Your task to perform on an android device: Add "razer nari" to the cart on newegg, then select checkout. Image 0: 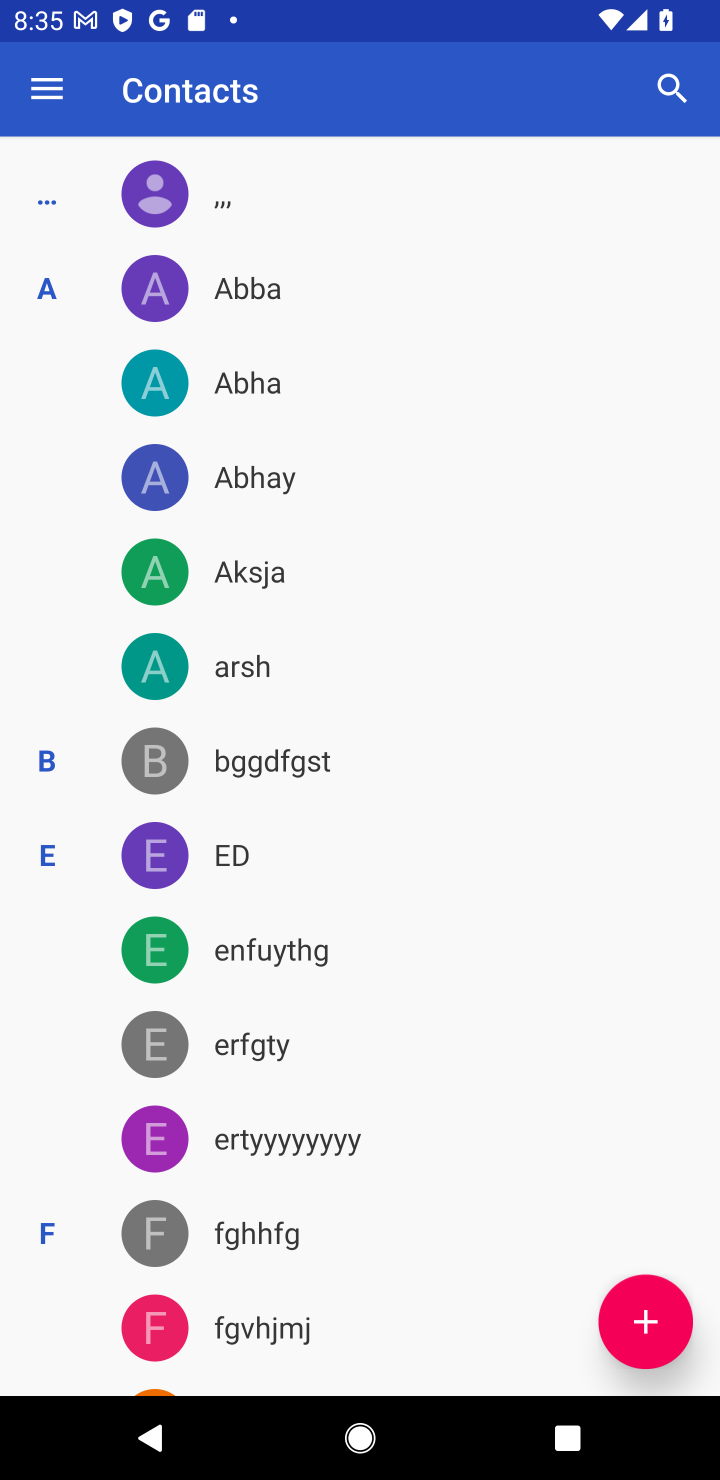
Step 0: press home button
Your task to perform on an android device: Add "razer nari" to the cart on newegg, then select checkout. Image 1: 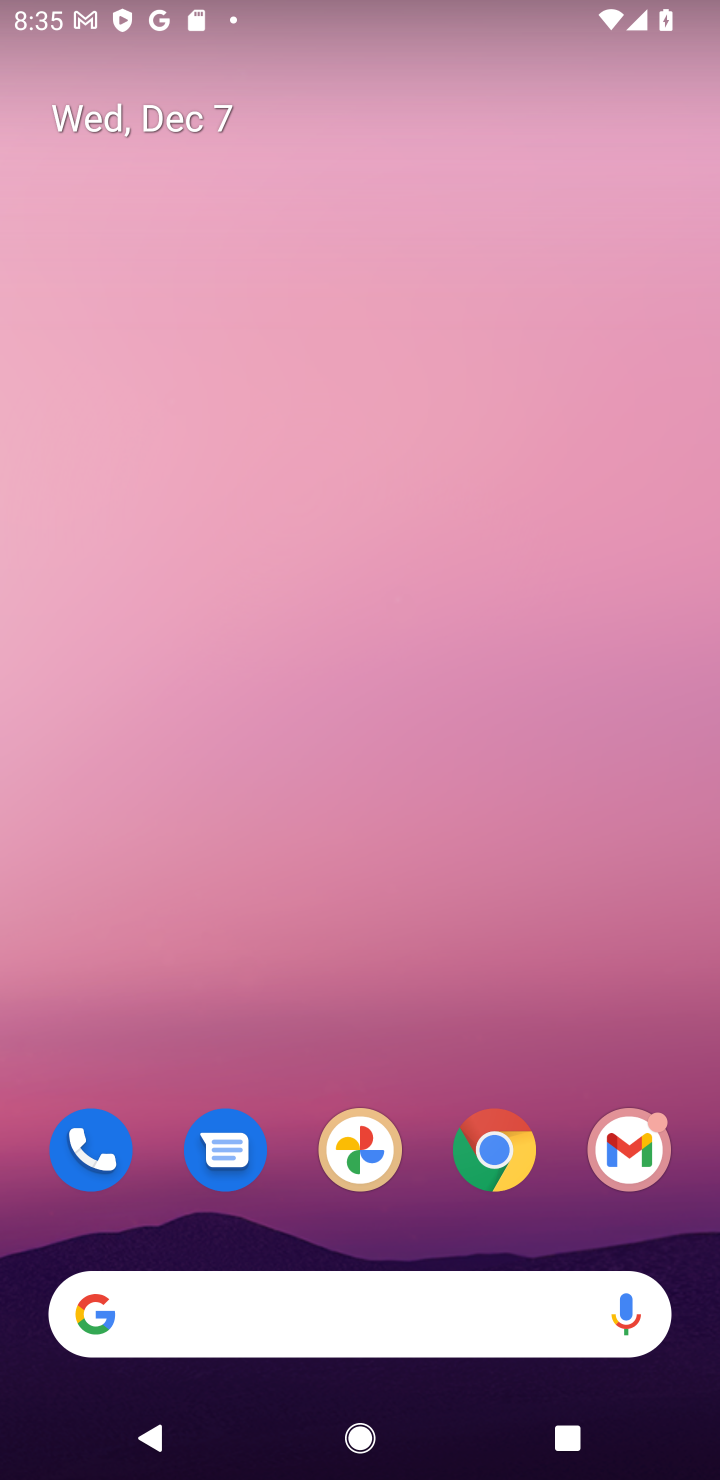
Step 1: click (498, 1169)
Your task to perform on an android device: Add "razer nari" to the cart on newegg, then select checkout. Image 2: 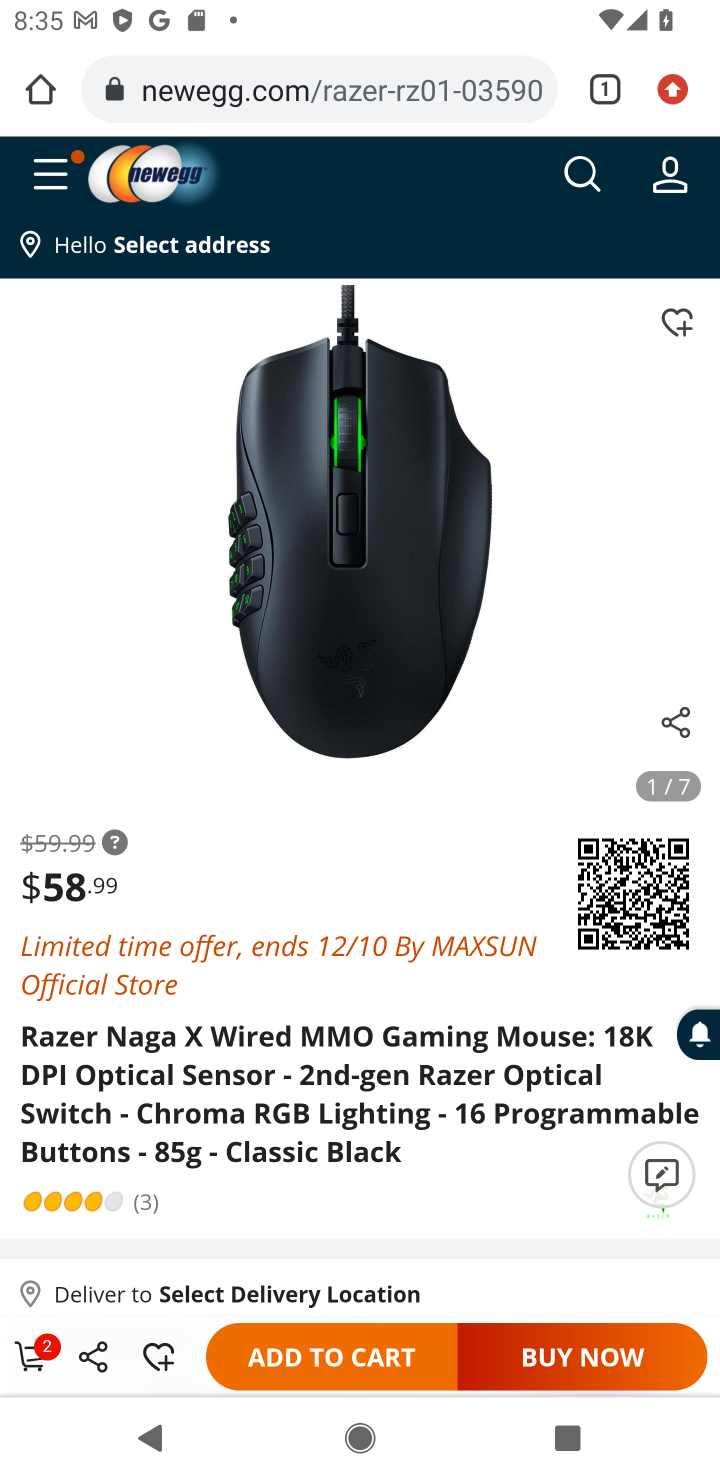
Step 2: click (180, 81)
Your task to perform on an android device: Add "razer nari" to the cart on newegg, then select checkout. Image 3: 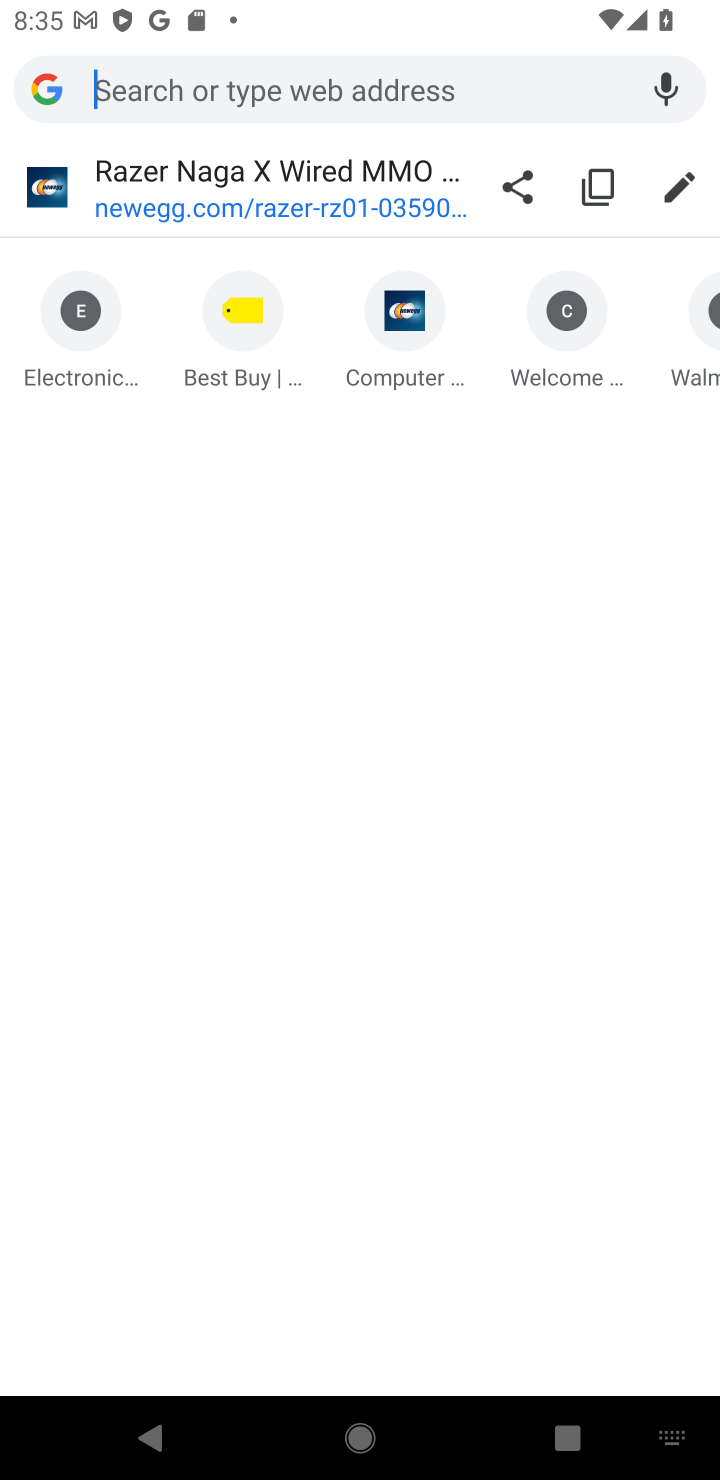
Step 3: click (421, 735)
Your task to perform on an android device: Add "razer nari" to the cart on newegg, then select checkout. Image 4: 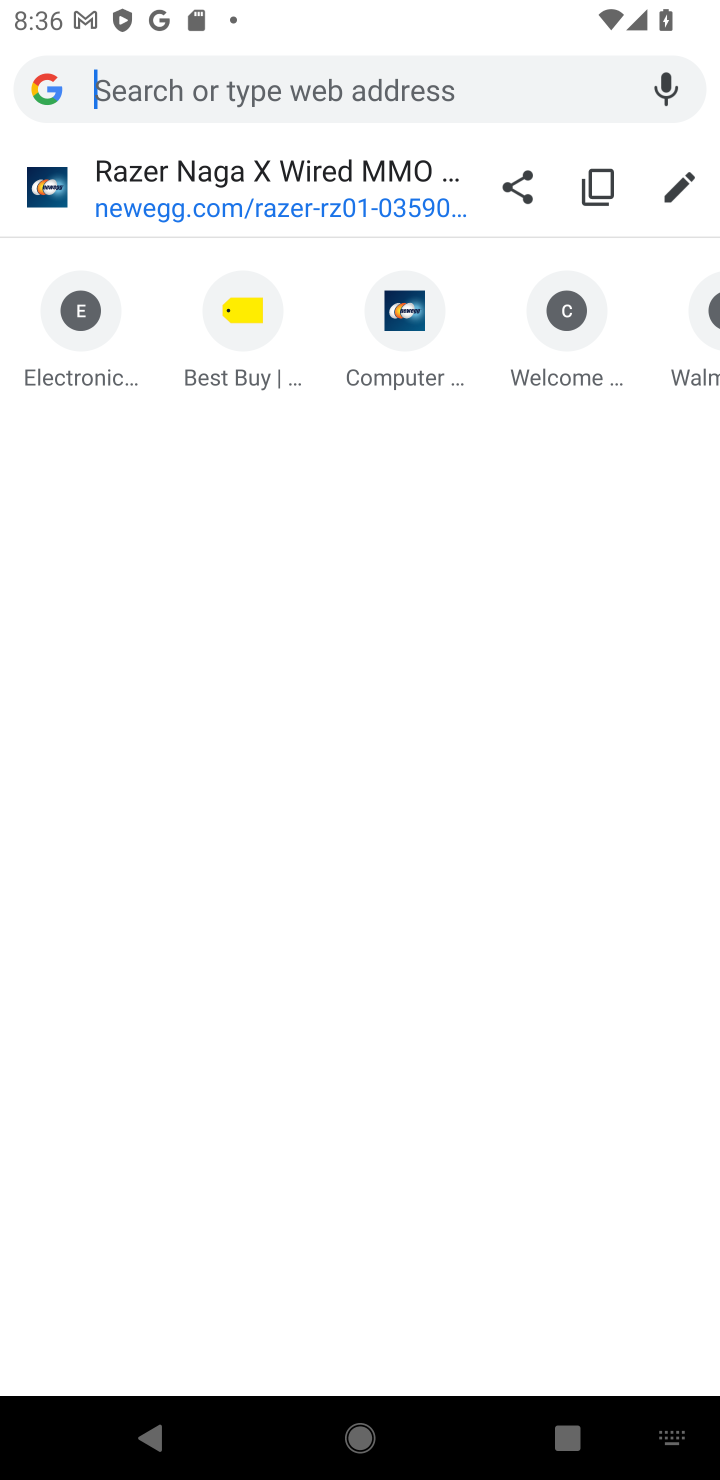
Step 4: press enter
Your task to perform on an android device: Add "razer nari" to the cart on newegg, then select checkout. Image 5: 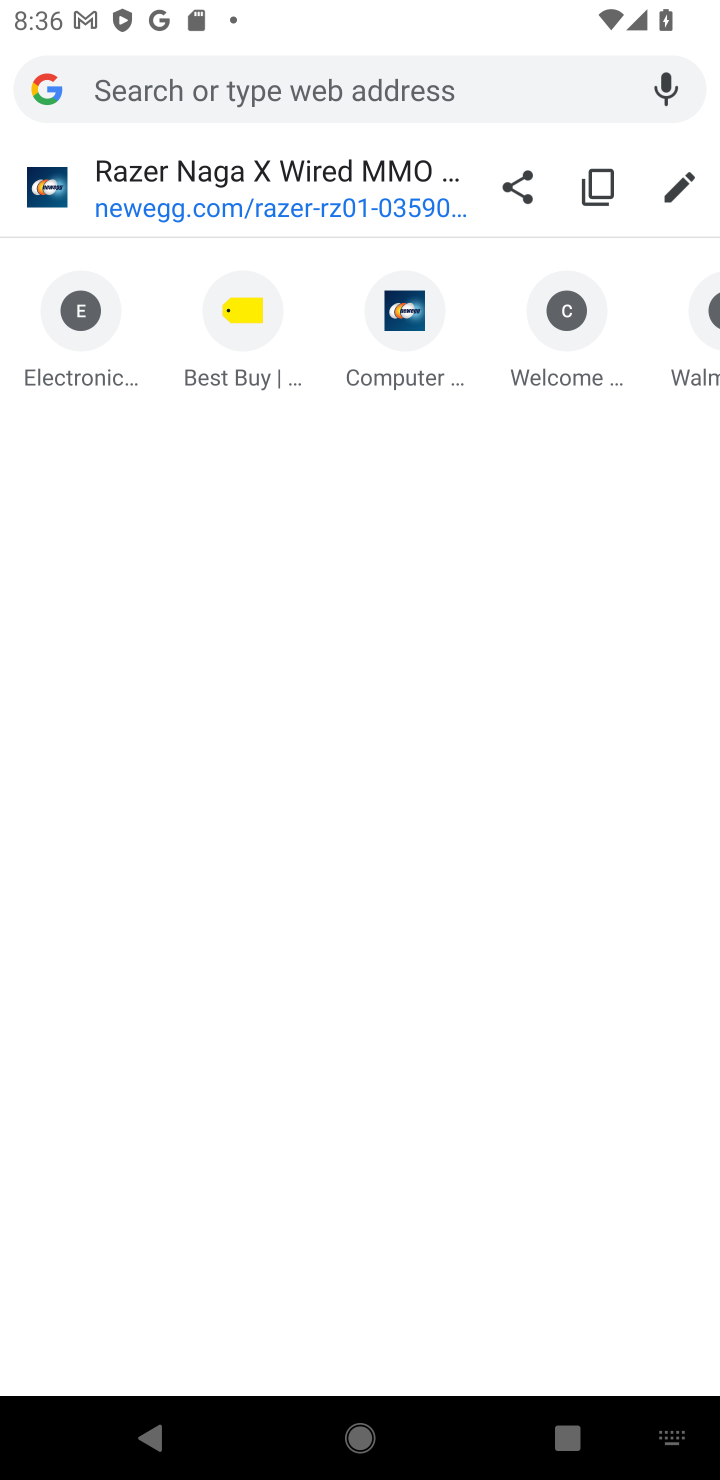
Step 5: type "newegg"
Your task to perform on an android device: Add "razer nari" to the cart on newegg, then select checkout. Image 6: 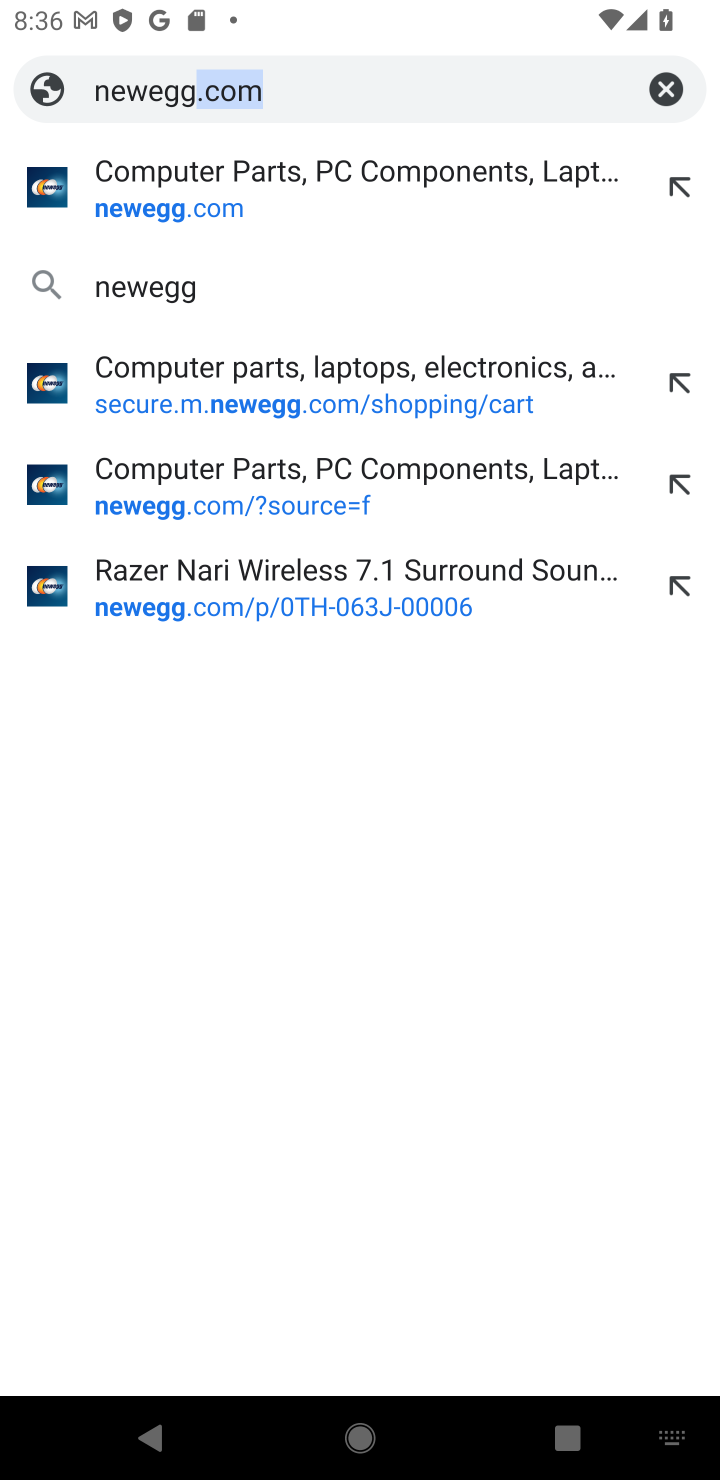
Step 6: click (239, 201)
Your task to perform on an android device: Add "razer nari" to the cart on newegg, then select checkout. Image 7: 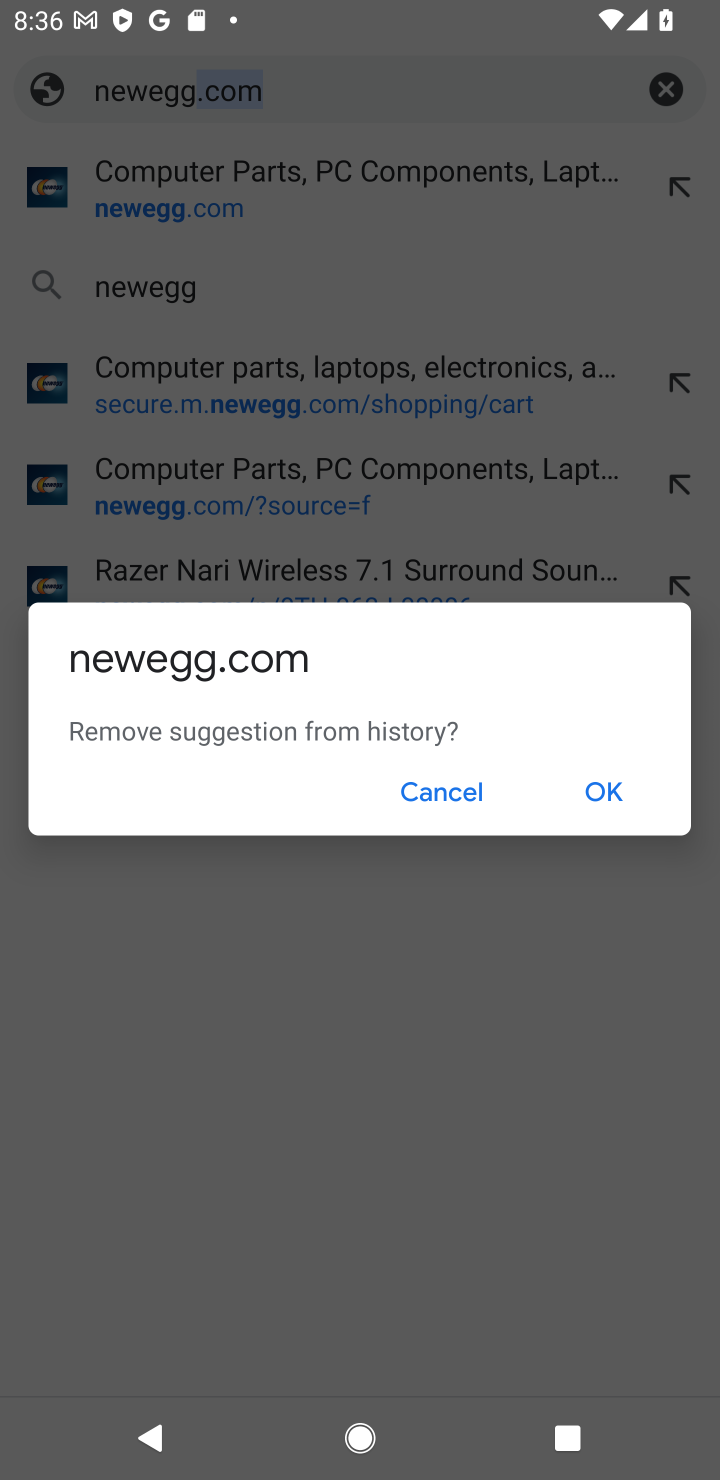
Step 7: click (609, 796)
Your task to perform on an android device: Add "razer nari" to the cart on newegg, then select checkout. Image 8: 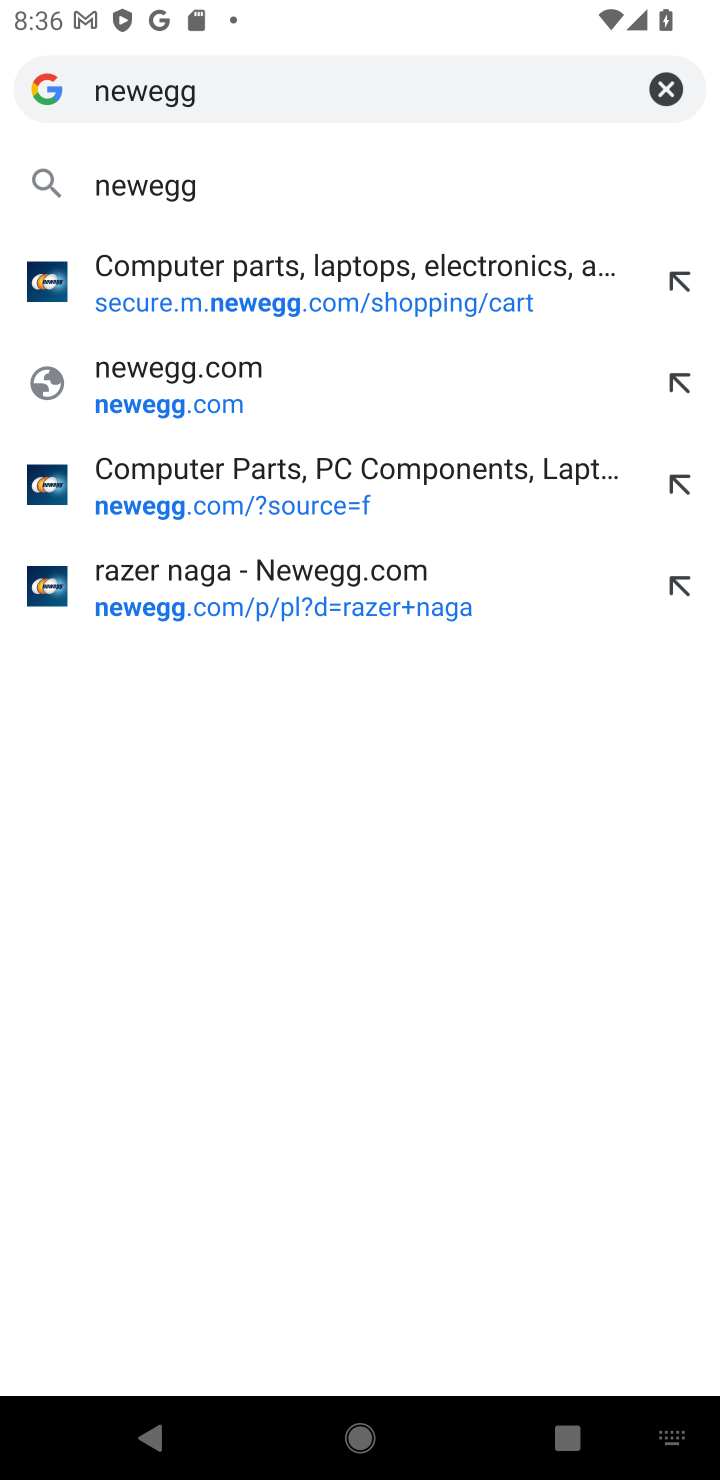
Step 8: press enter
Your task to perform on an android device: Add "razer nari" to the cart on newegg, then select checkout. Image 9: 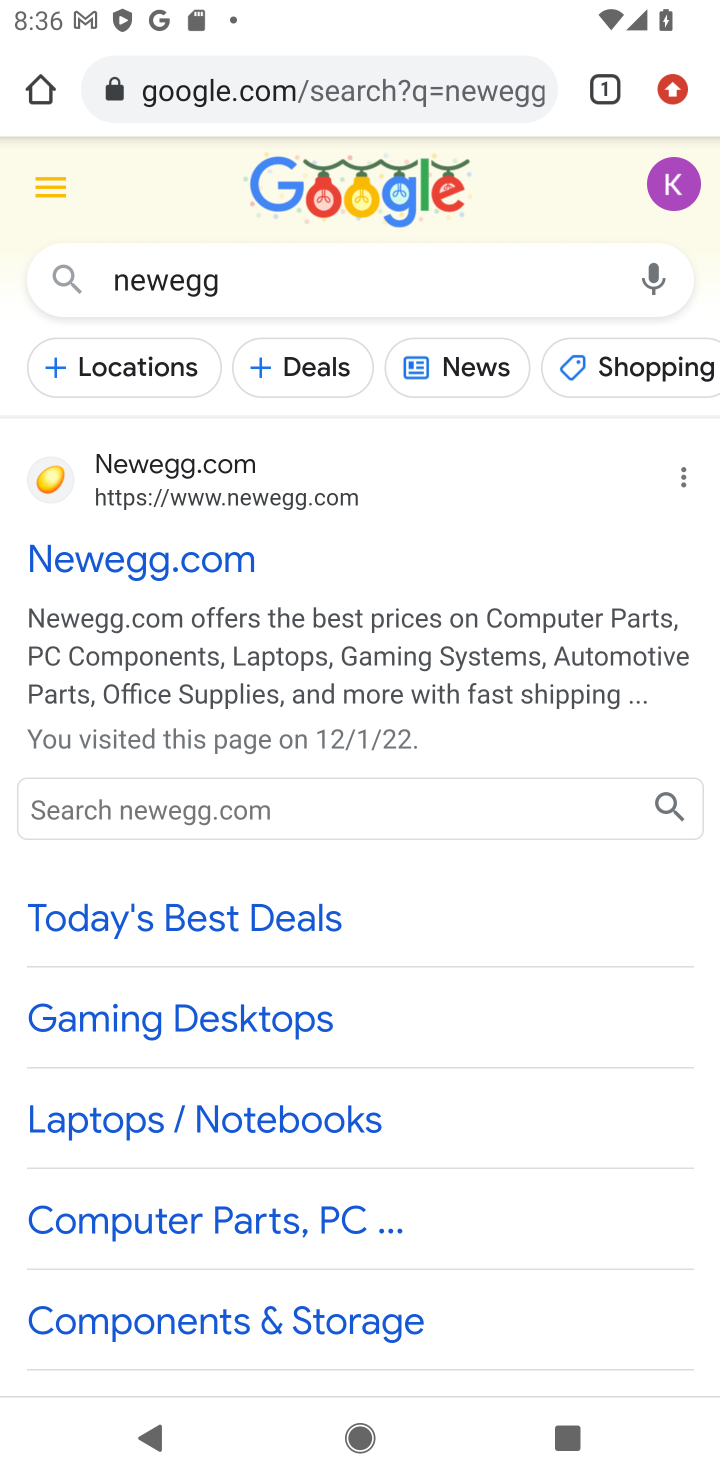
Step 9: click (130, 568)
Your task to perform on an android device: Add "razer nari" to the cart on newegg, then select checkout. Image 10: 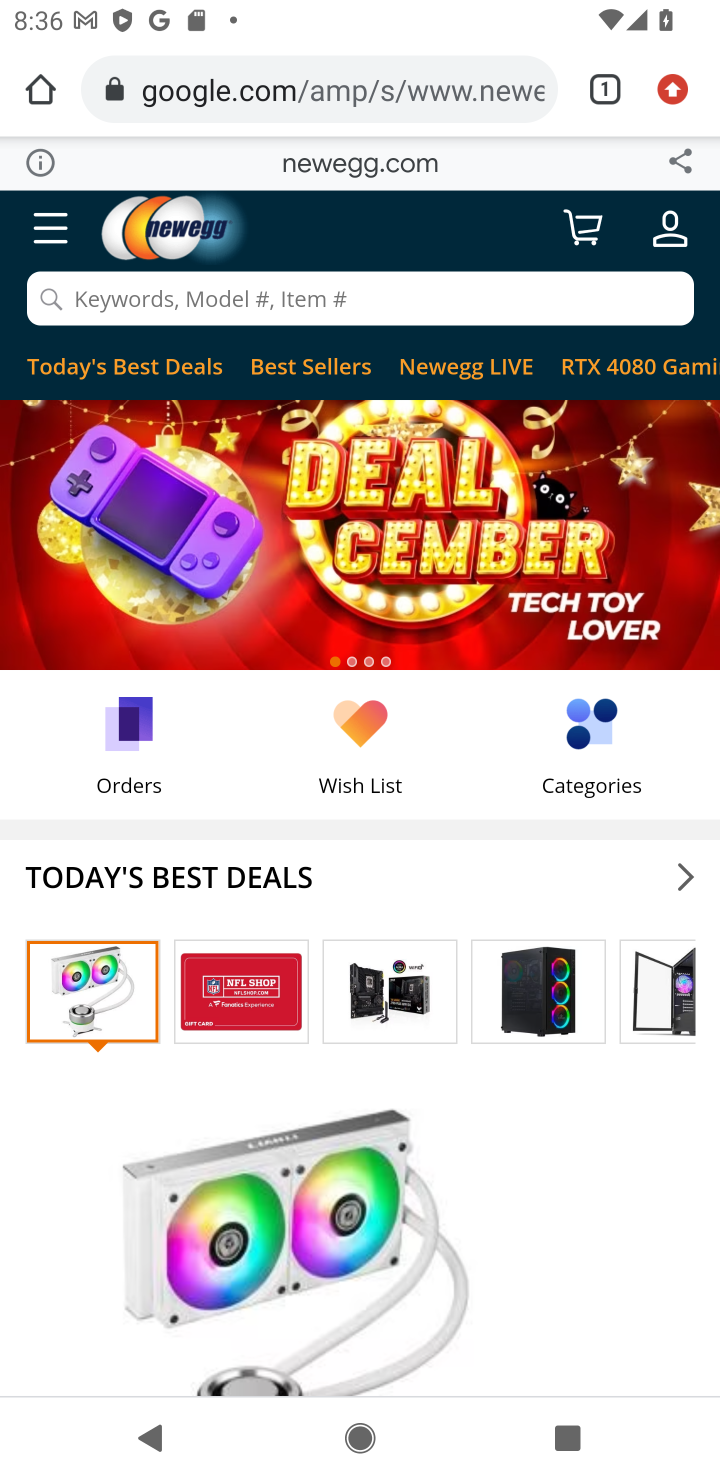
Step 10: click (198, 290)
Your task to perform on an android device: Add "razer nari" to the cart on newegg, then select checkout. Image 11: 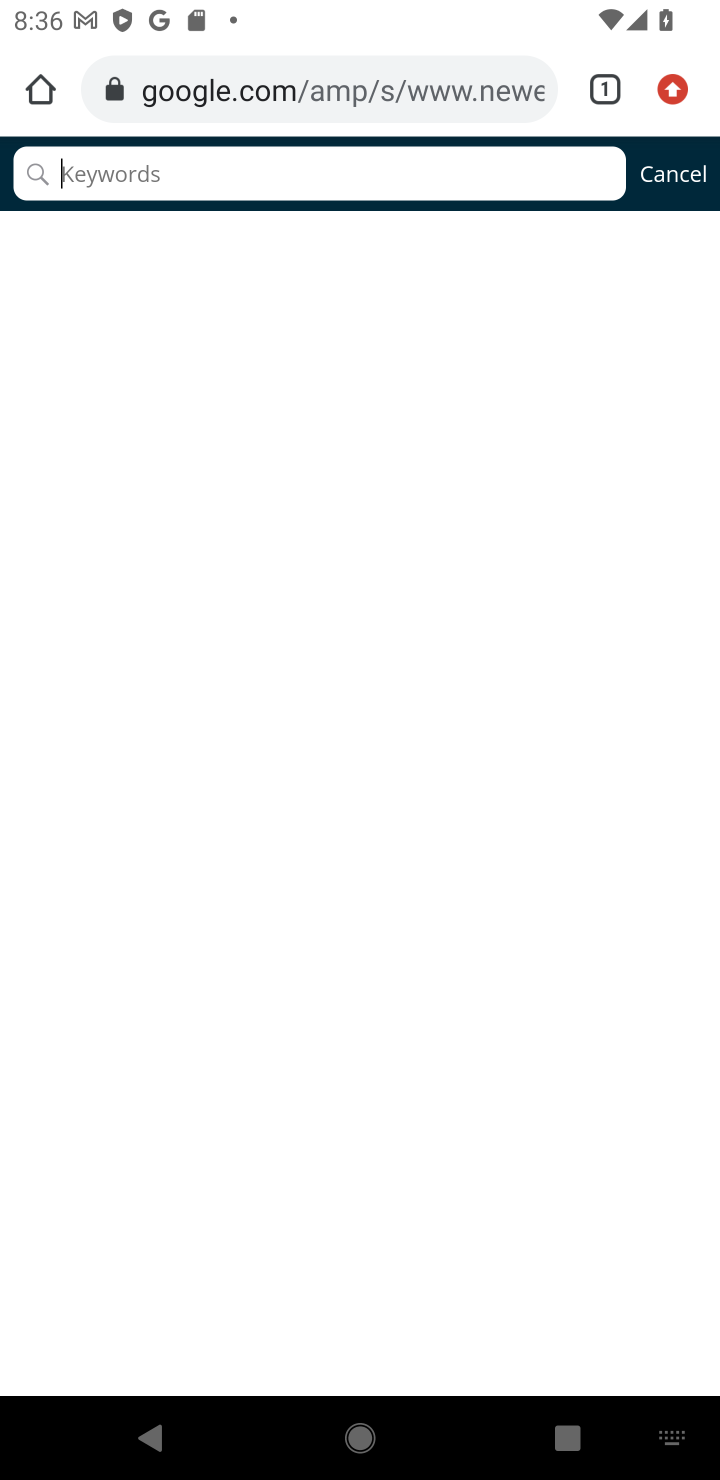
Step 11: type "razer nari"
Your task to perform on an android device: Add "razer nari" to the cart on newegg, then select checkout. Image 12: 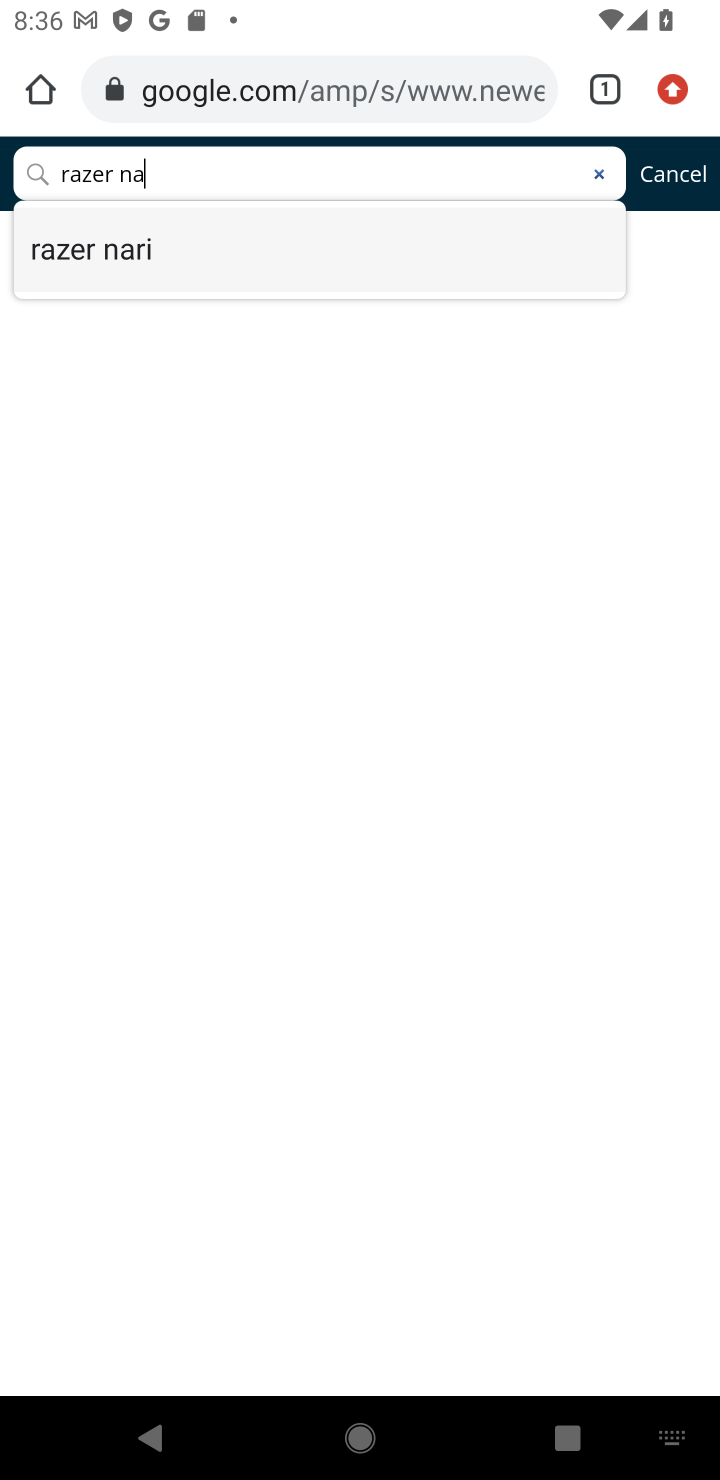
Step 12: press enter
Your task to perform on an android device: Add "razer nari" to the cart on newegg, then select checkout. Image 13: 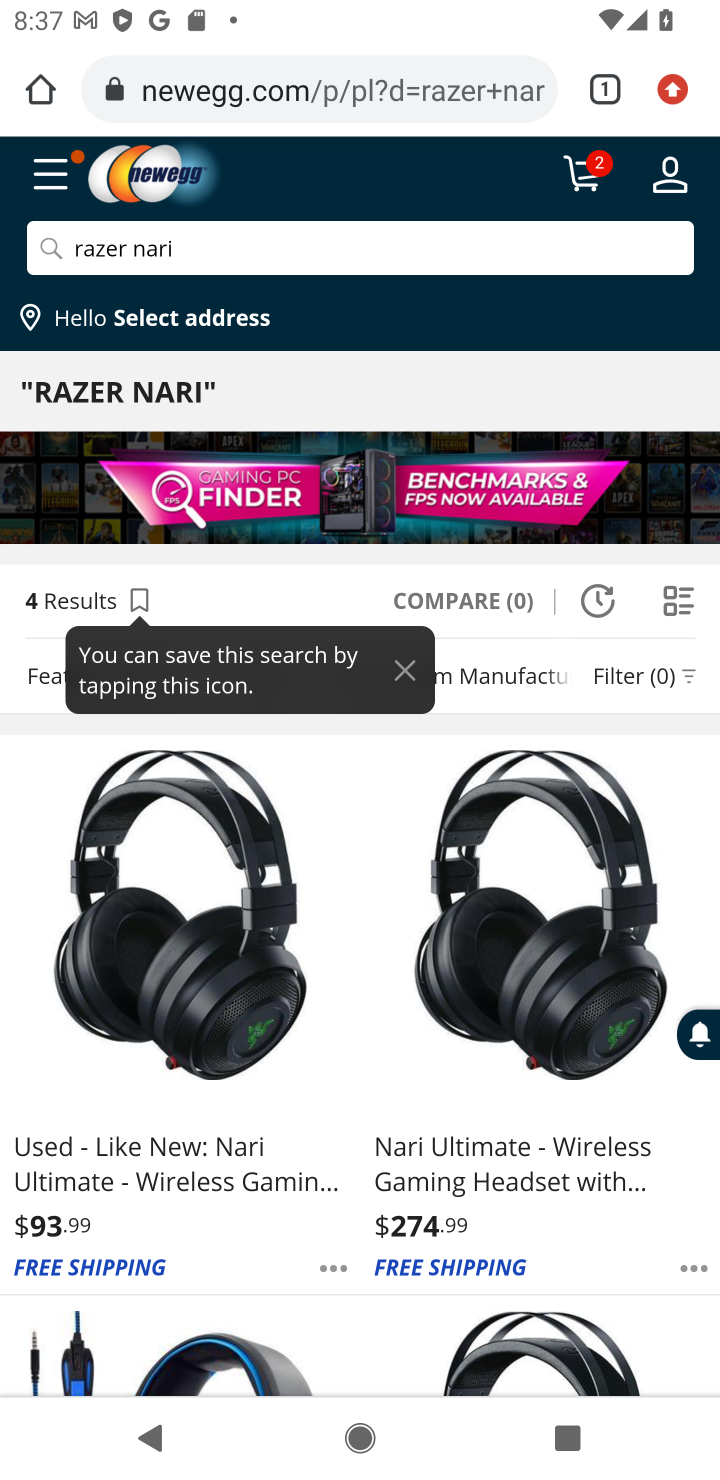
Step 13: drag from (587, 1237) to (557, 628)
Your task to perform on an android device: Add "razer nari" to the cart on newegg, then select checkout. Image 14: 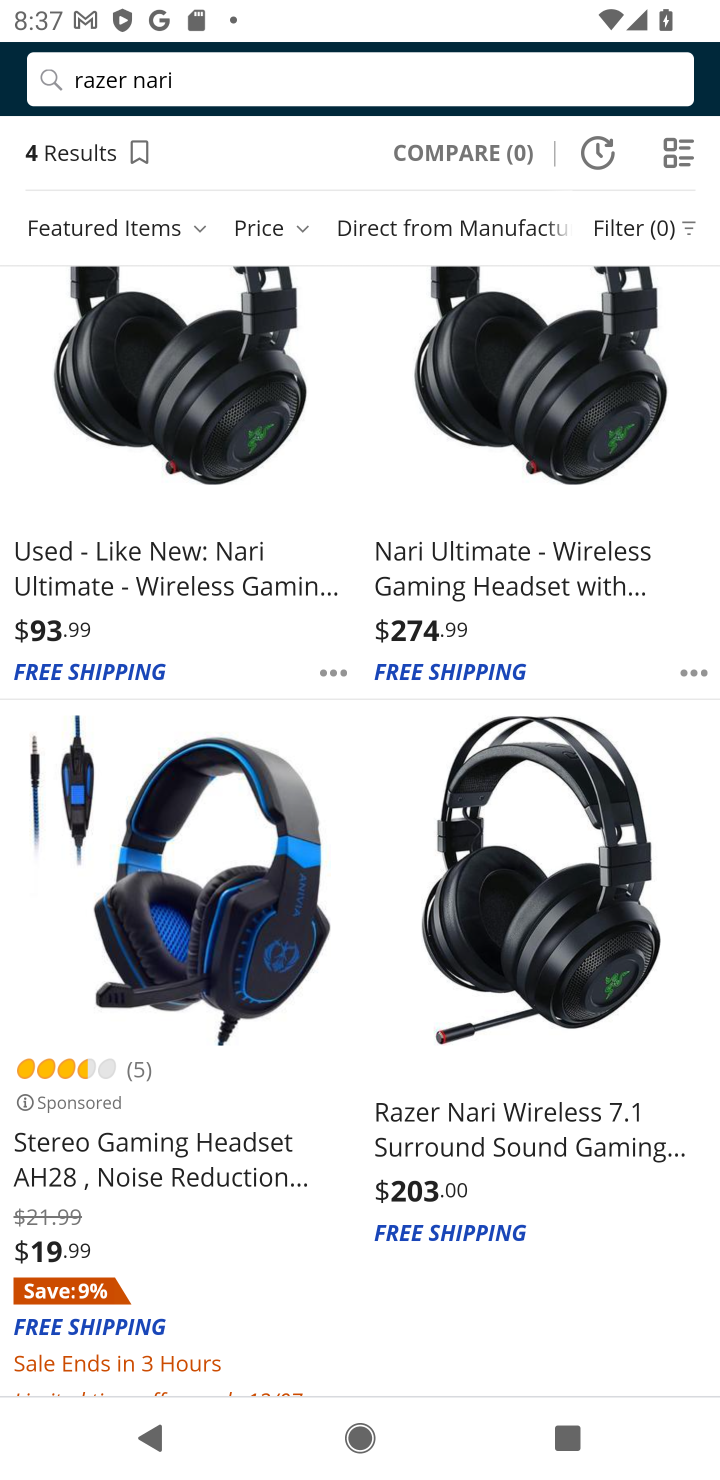
Step 14: click (537, 929)
Your task to perform on an android device: Add "razer nari" to the cart on newegg, then select checkout. Image 15: 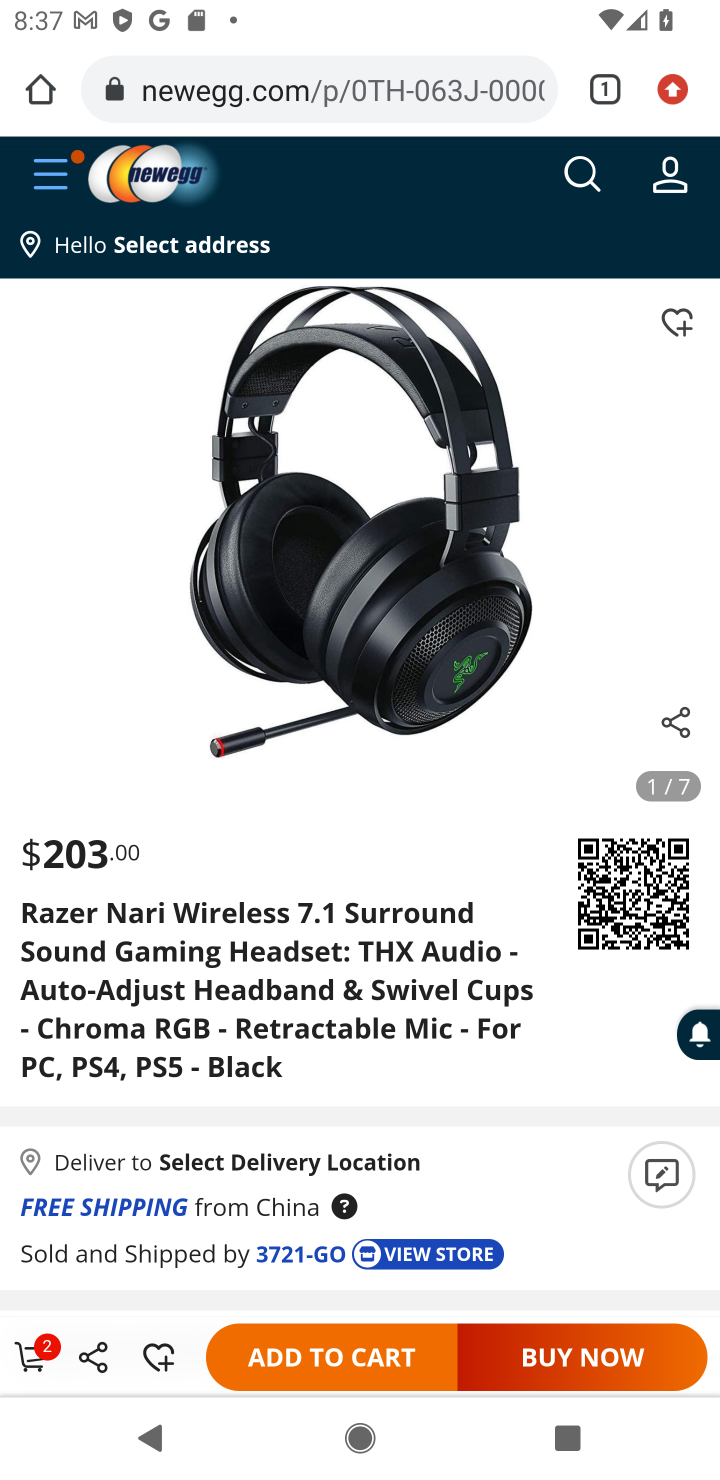
Step 15: drag from (494, 1061) to (423, 696)
Your task to perform on an android device: Add "razer nari" to the cart on newegg, then select checkout. Image 16: 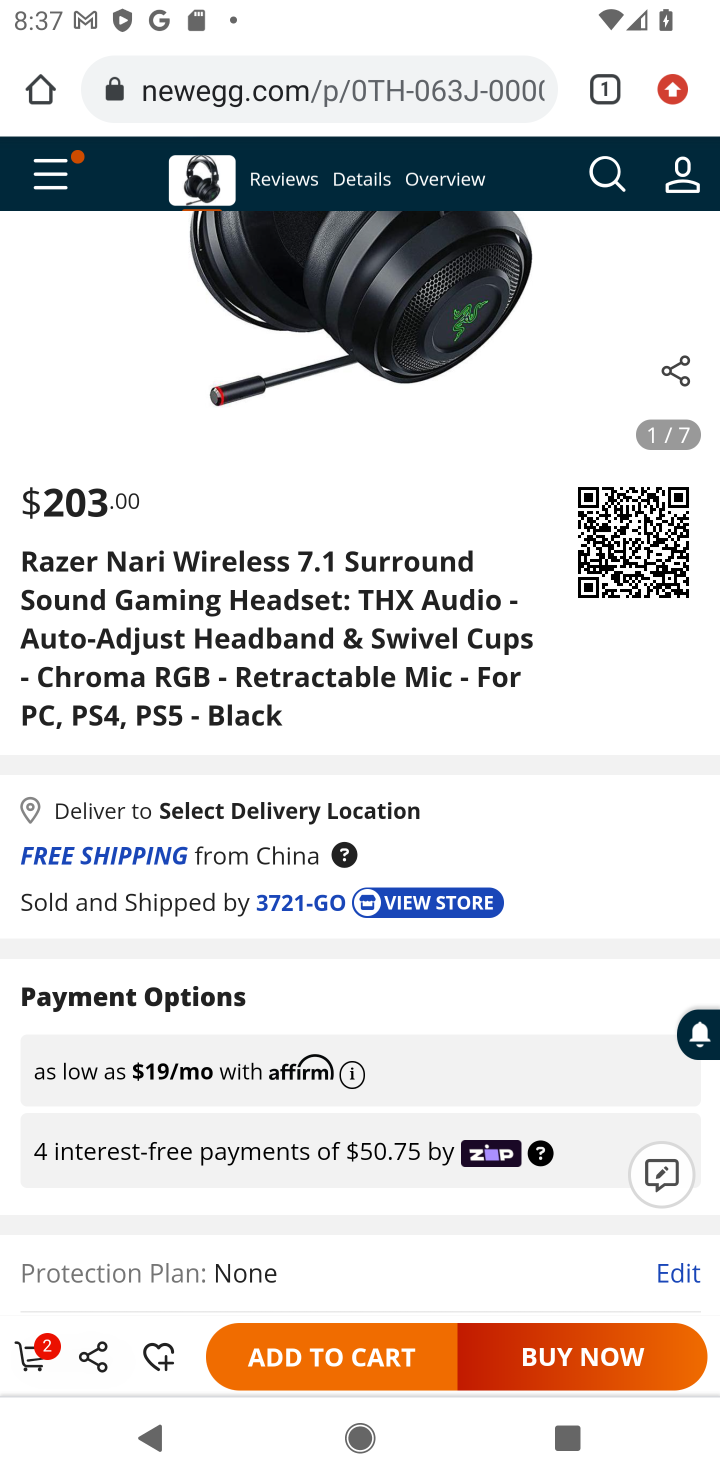
Step 16: click (360, 1367)
Your task to perform on an android device: Add "razer nari" to the cart on newegg, then select checkout. Image 17: 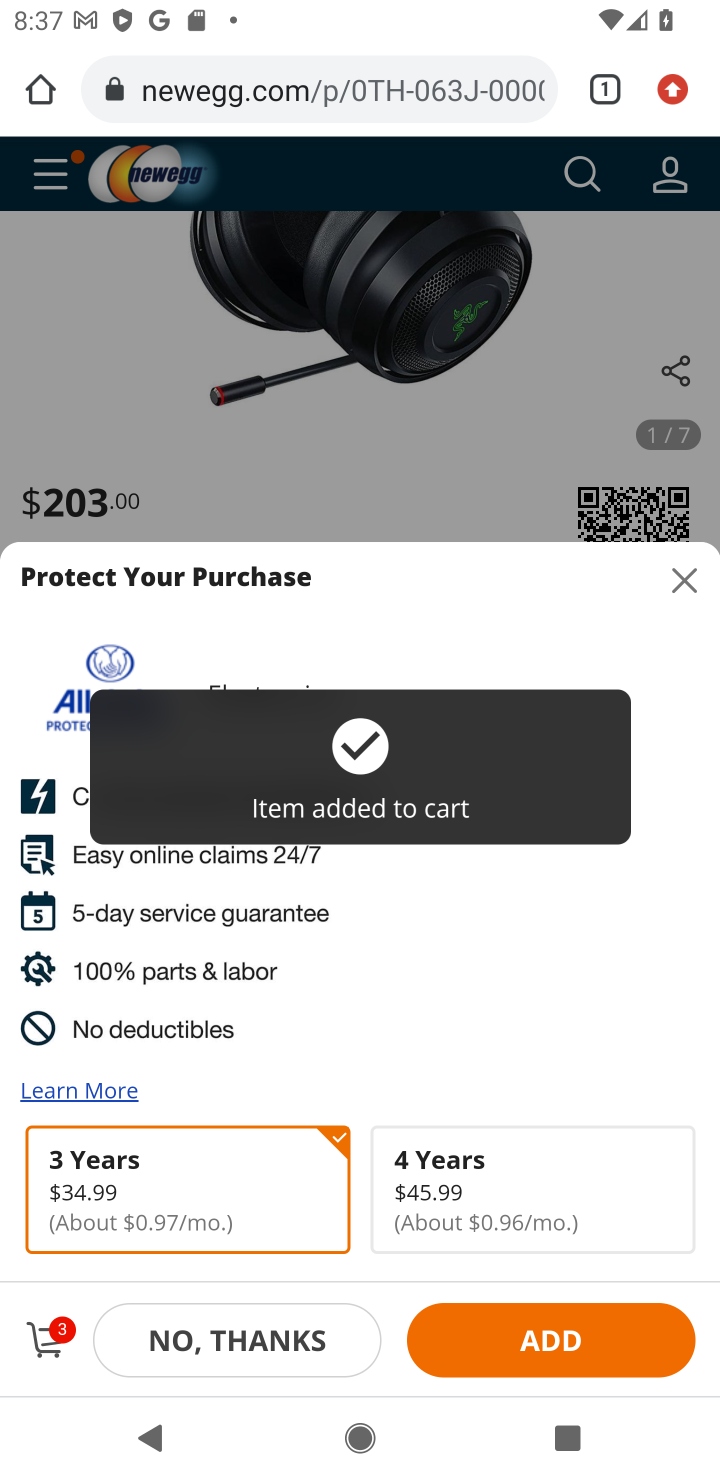
Step 17: click (524, 1343)
Your task to perform on an android device: Add "razer nari" to the cart on newegg, then select checkout. Image 18: 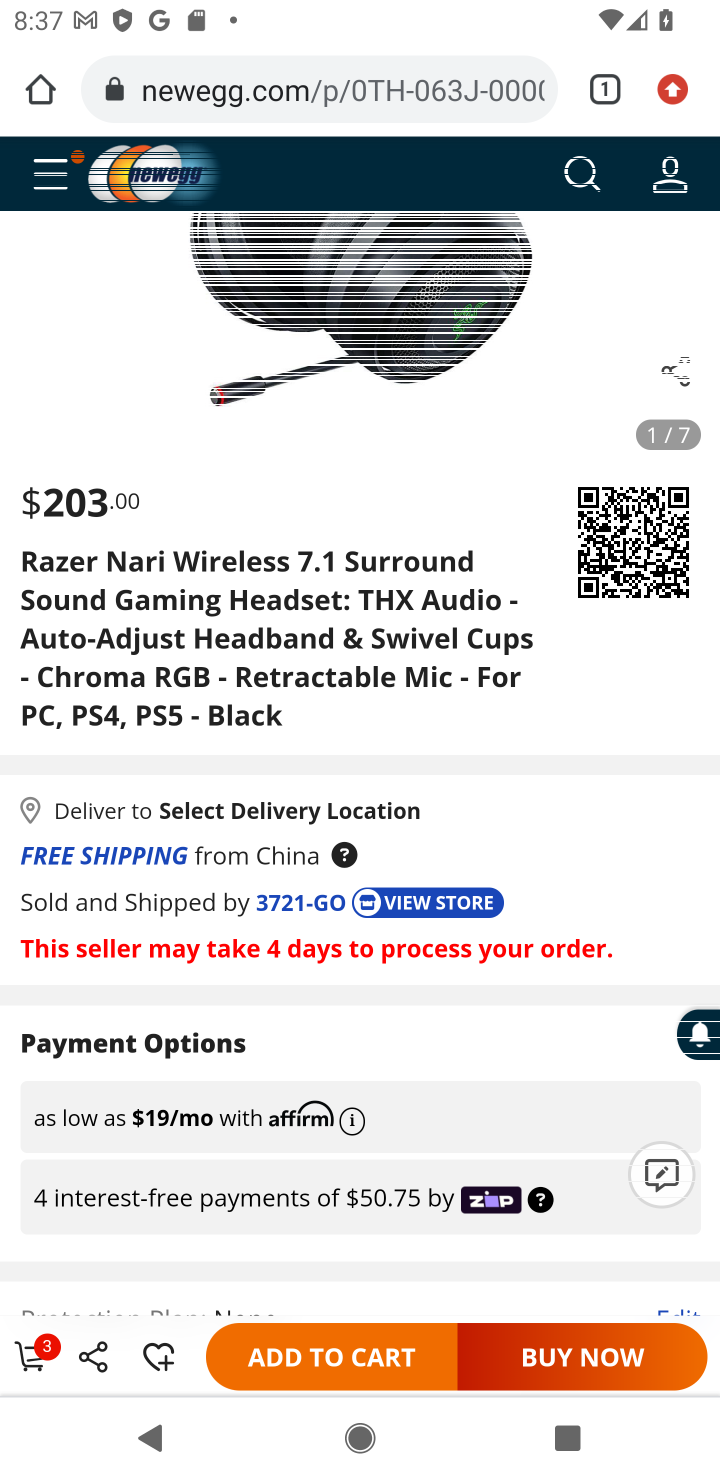
Step 18: click (45, 169)
Your task to perform on an android device: Add "razer nari" to the cart on newegg, then select checkout. Image 19: 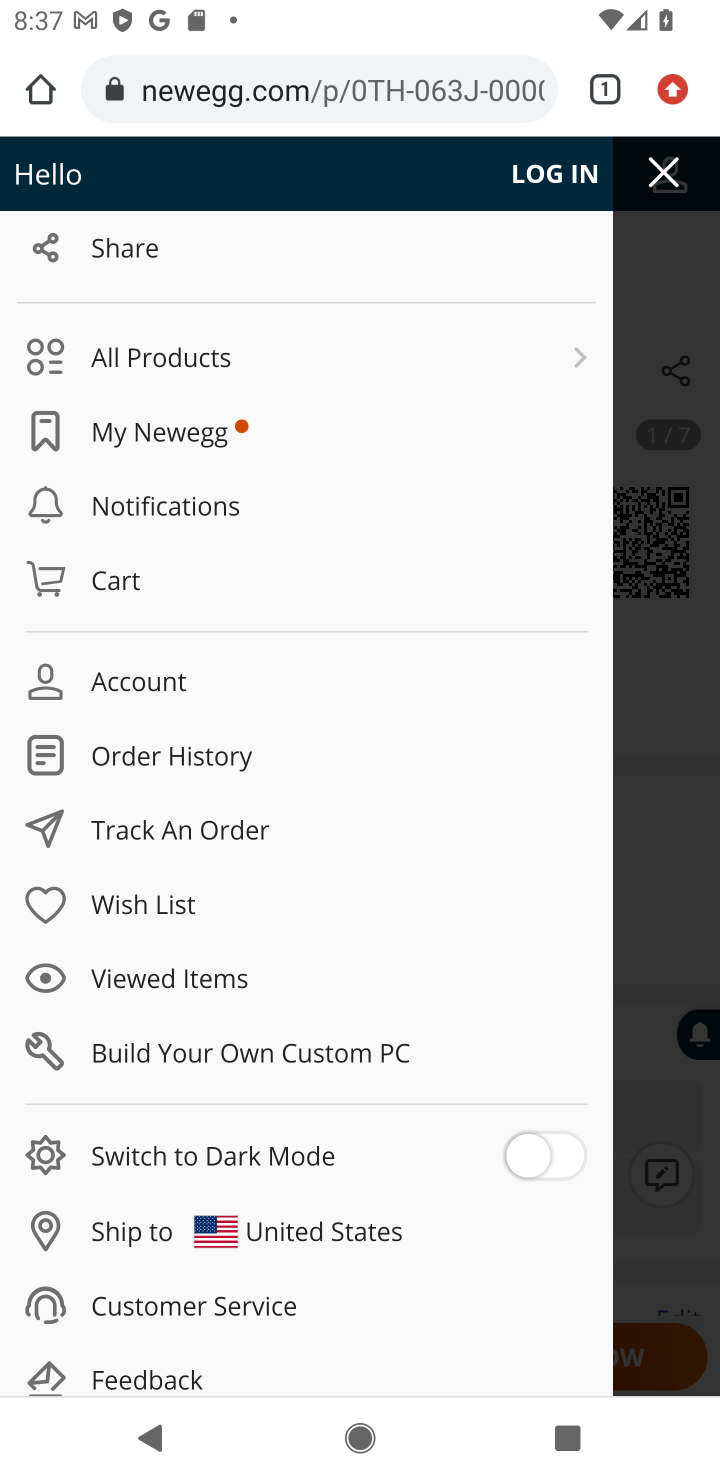
Step 19: click (141, 591)
Your task to perform on an android device: Add "razer nari" to the cart on newegg, then select checkout. Image 20: 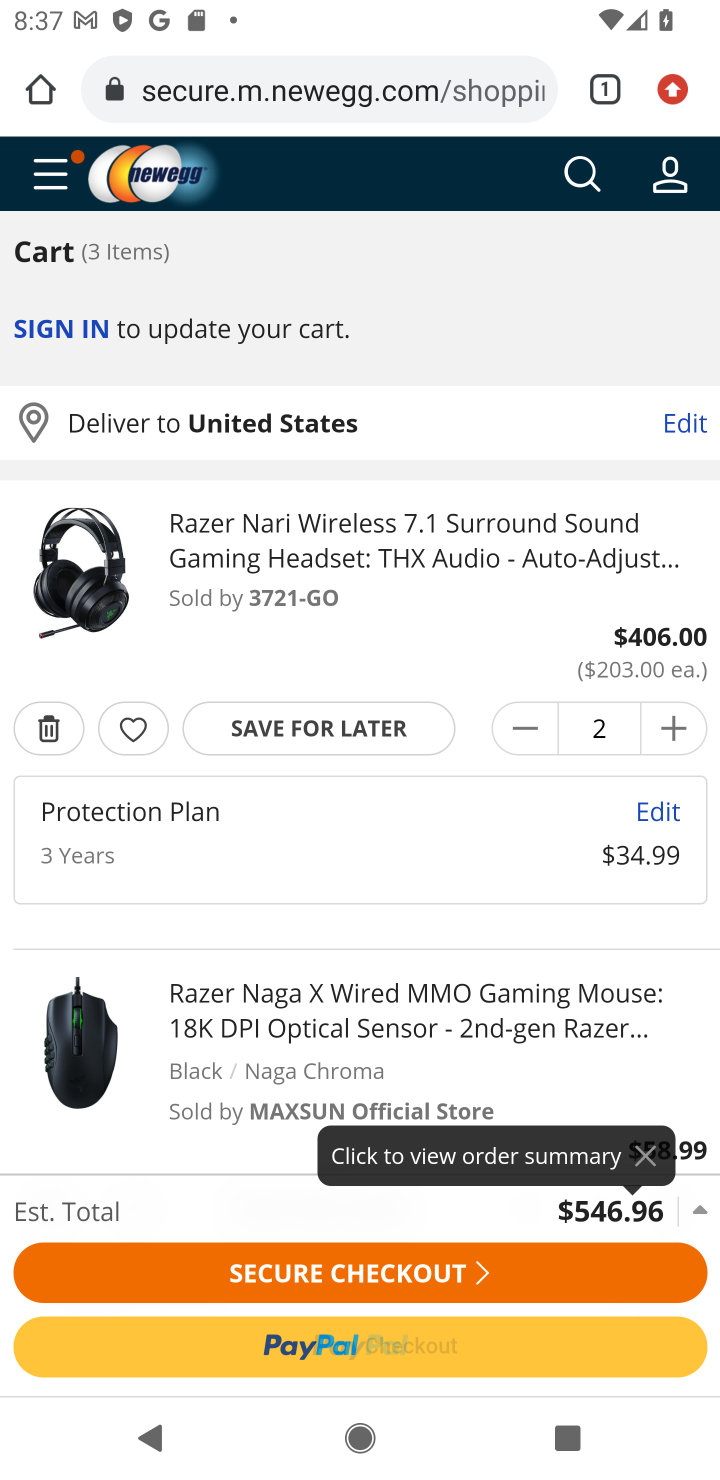
Step 20: click (435, 1322)
Your task to perform on an android device: Add "razer nari" to the cart on newegg, then select checkout. Image 21: 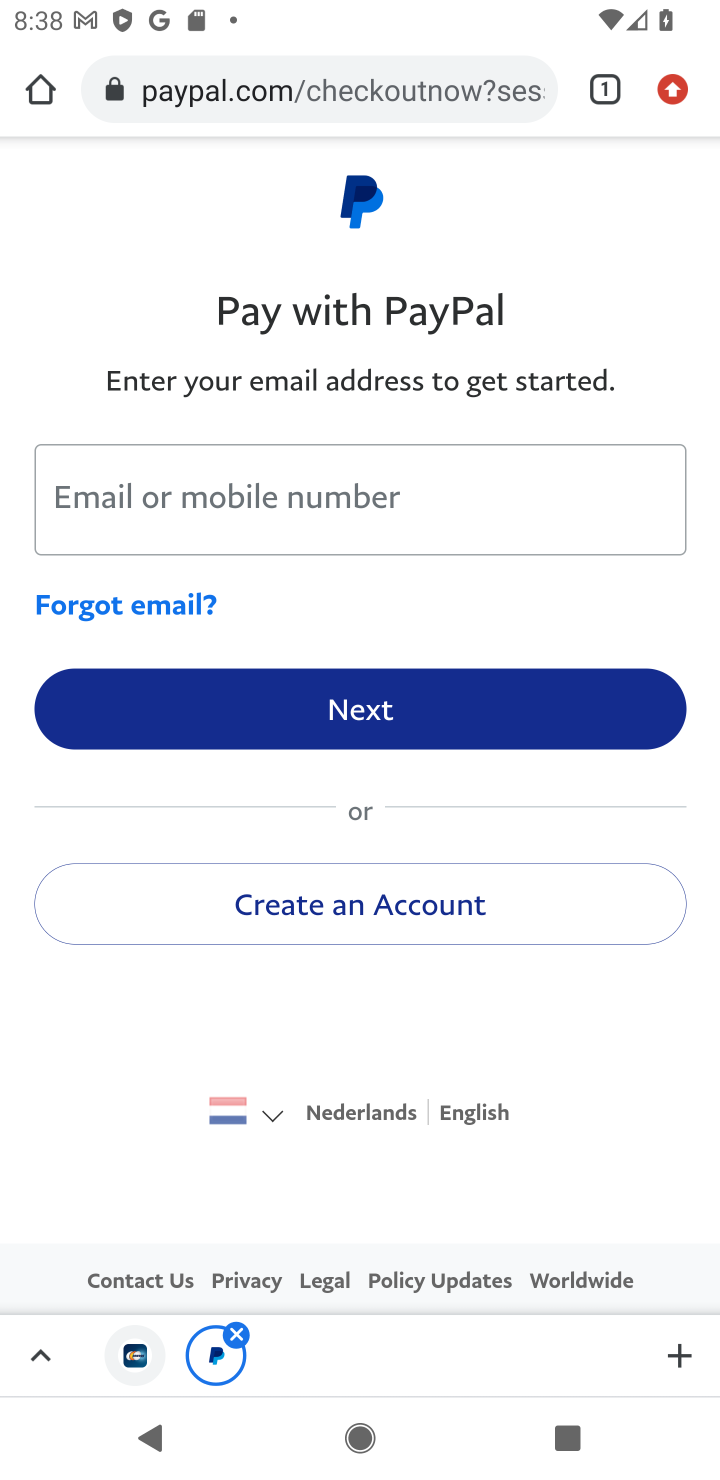
Step 21: task complete